Your task to perform on an android device: turn on improve location accuracy Image 0: 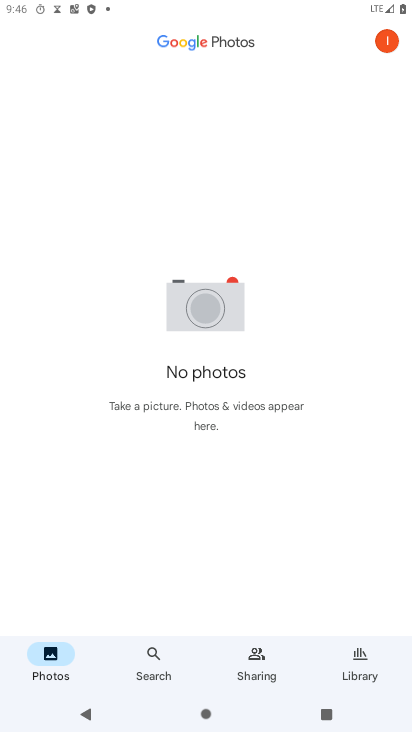
Step 0: press home button
Your task to perform on an android device: turn on improve location accuracy Image 1: 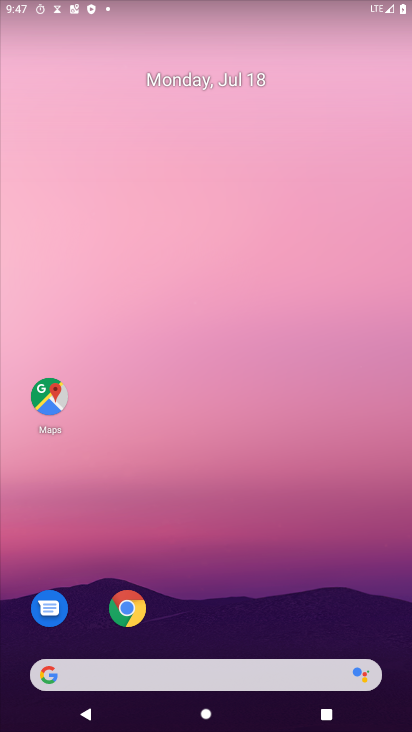
Step 1: click (249, 5)
Your task to perform on an android device: turn on improve location accuracy Image 2: 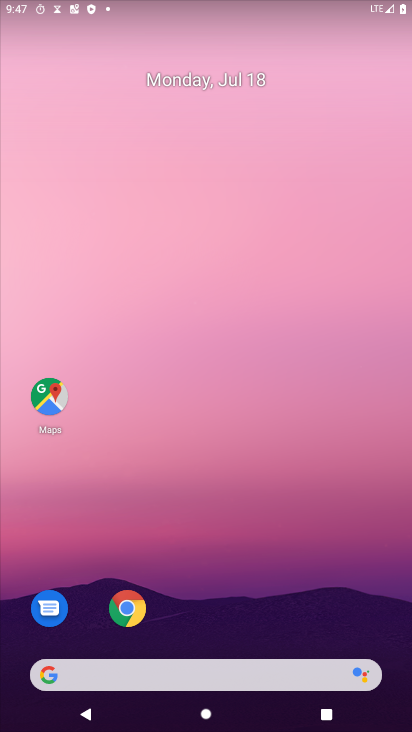
Step 2: drag from (175, 625) to (177, 167)
Your task to perform on an android device: turn on improve location accuracy Image 3: 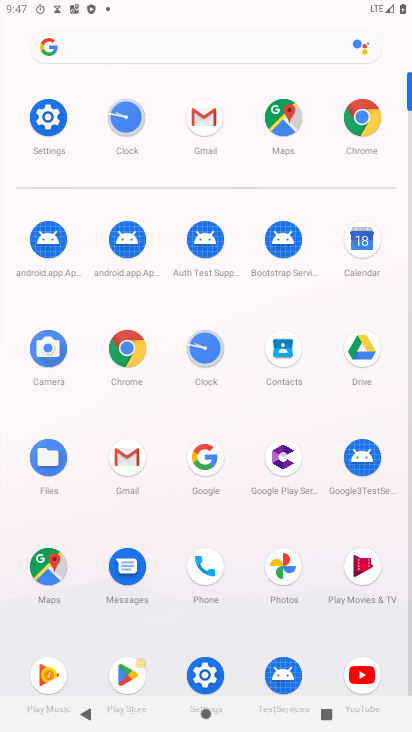
Step 3: click (39, 131)
Your task to perform on an android device: turn on improve location accuracy Image 4: 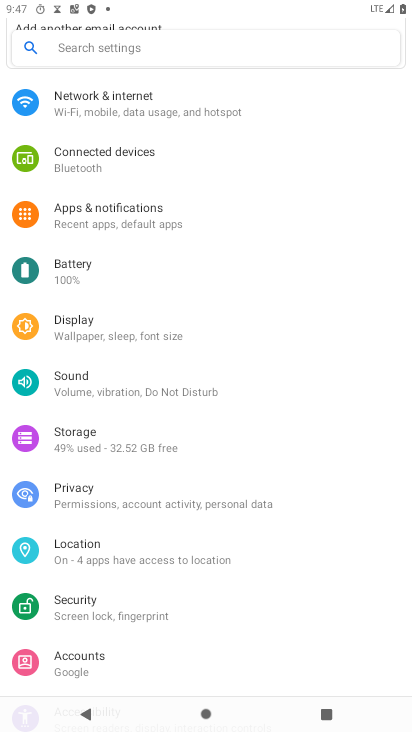
Step 4: click (42, 117)
Your task to perform on an android device: turn on improve location accuracy Image 5: 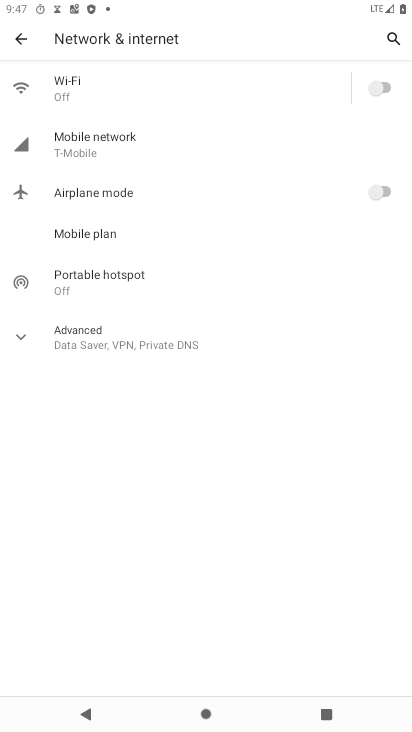
Step 5: click (20, 39)
Your task to perform on an android device: turn on improve location accuracy Image 6: 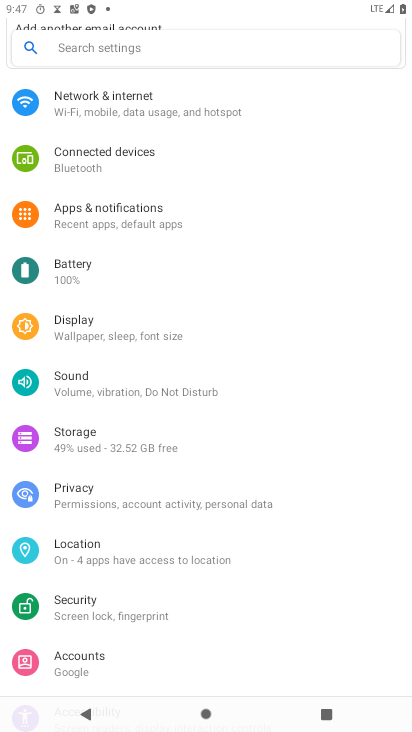
Step 6: click (105, 557)
Your task to perform on an android device: turn on improve location accuracy Image 7: 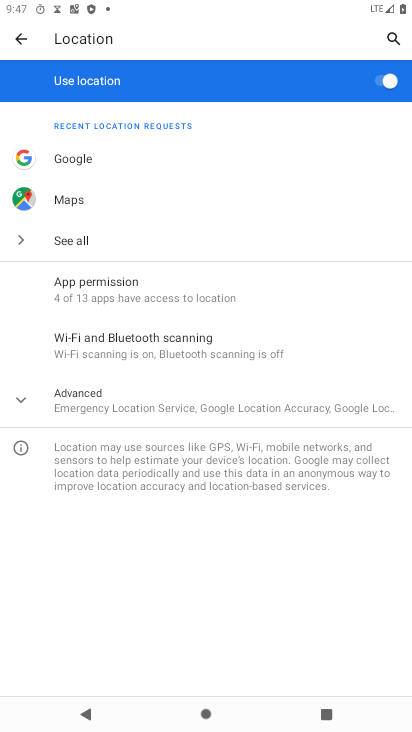
Step 7: click (90, 388)
Your task to perform on an android device: turn on improve location accuracy Image 8: 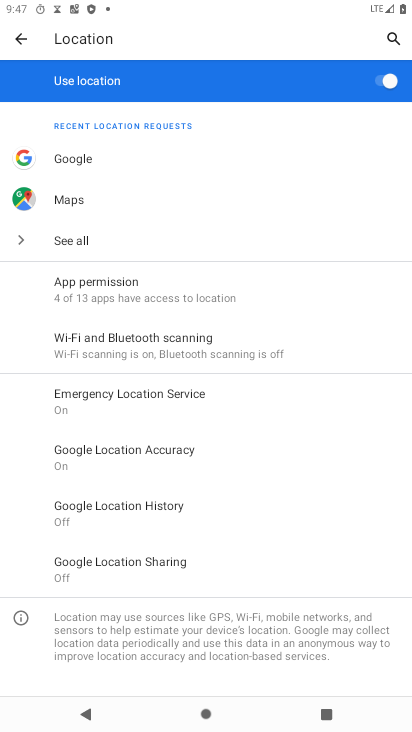
Step 8: click (102, 446)
Your task to perform on an android device: turn on improve location accuracy Image 9: 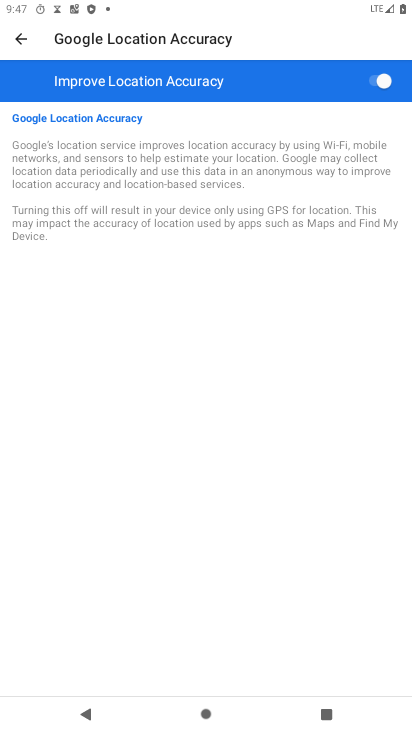
Step 9: task complete